Your task to perform on an android device: empty trash in the gmail app Image 0: 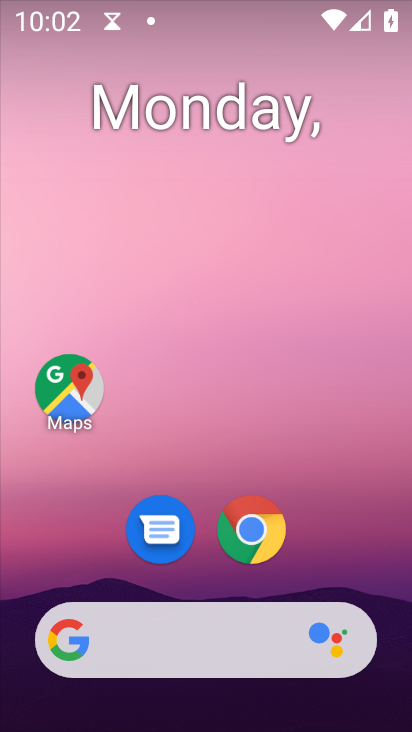
Step 0: drag from (298, 574) to (177, 85)
Your task to perform on an android device: empty trash in the gmail app Image 1: 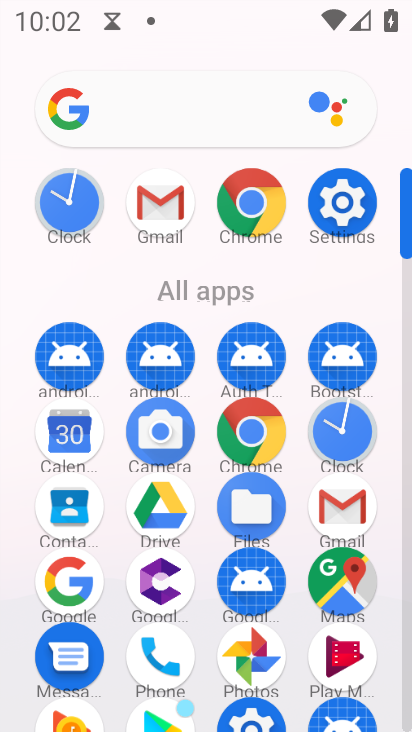
Step 1: click (157, 202)
Your task to perform on an android device: empty trash in the gmail app Image 2: 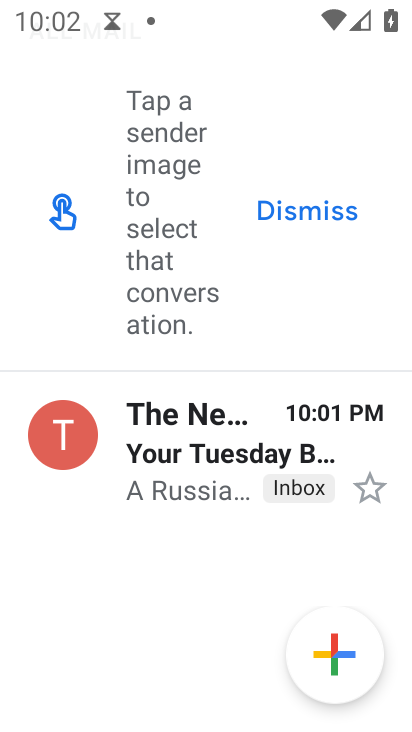
Step 2: drag from (194, 116) to (185, 314)
Your task to perform on an android device: empty trash in the gmail app Image 3: 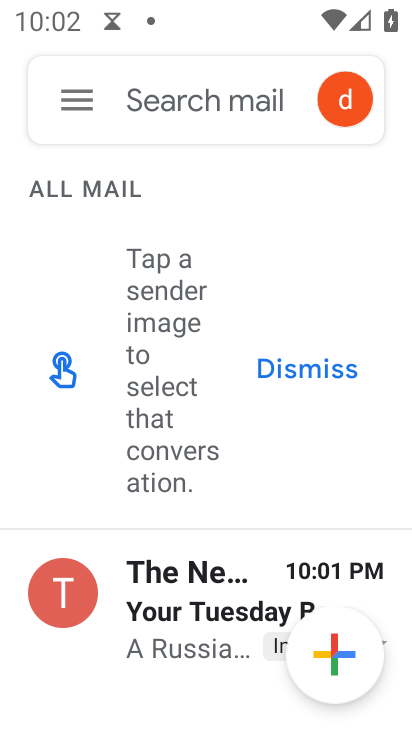
Step 3: click (86, 106)
Your task to perform on an android device: empty trash in the gmail app Image 4: 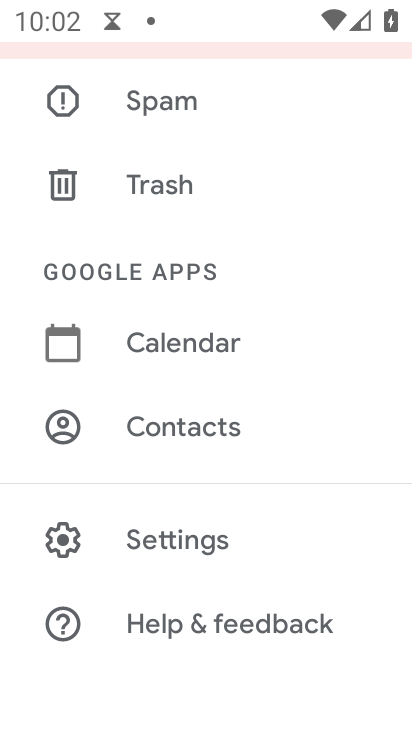
Step 4: click (154, 190)
Your task to perform on an android device: empty trash in the gmail app Image 5: 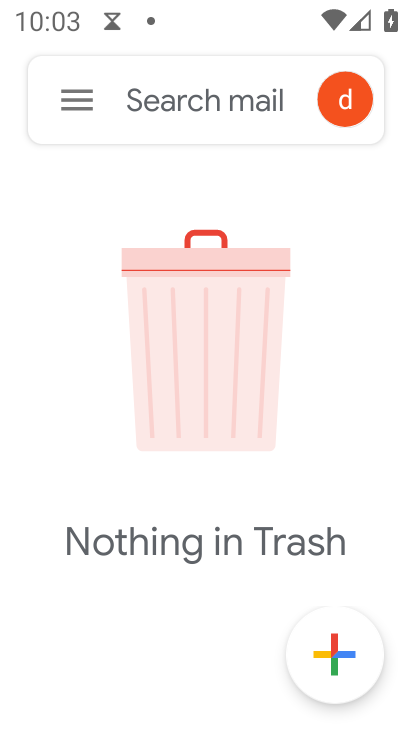
Step 5: task complete